Your task to perform on an android device: change text size in settings app Image 0: 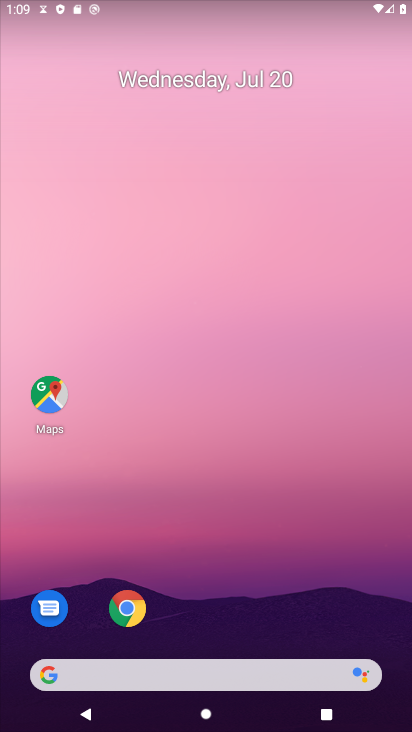
Step 0: drag from (211, 664) to (340, 116)
Your task to perform on an android device: change text size in settings app Image 1: 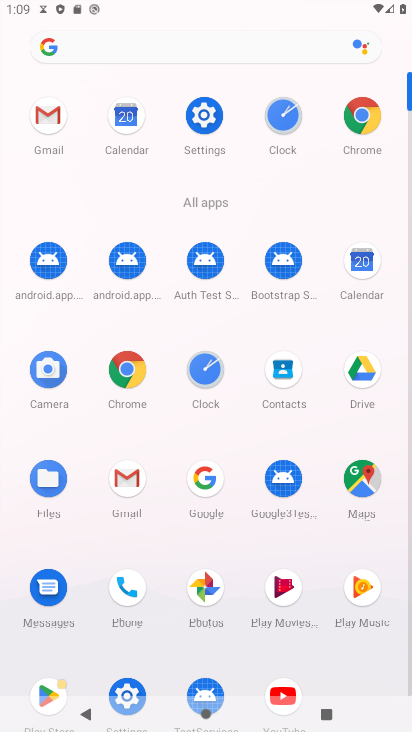
Step 1: click (202, 115)
Your task to perform on an android device: change text size in settings app Image 2: 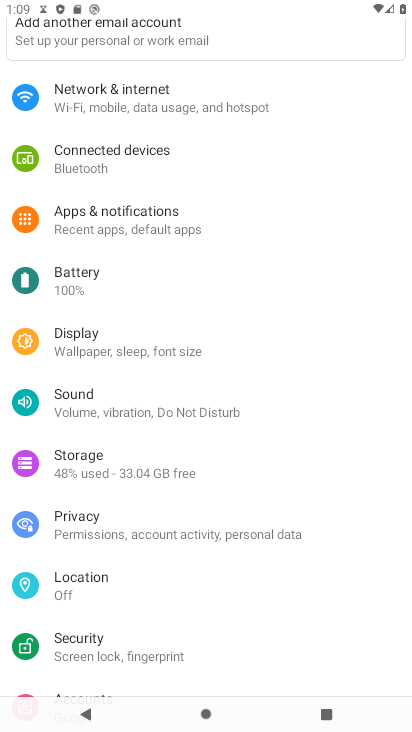
Step 2: drag from (107, 428) to (180, 334)
Your task to perform on an android device: change text size in settings app Image 3: 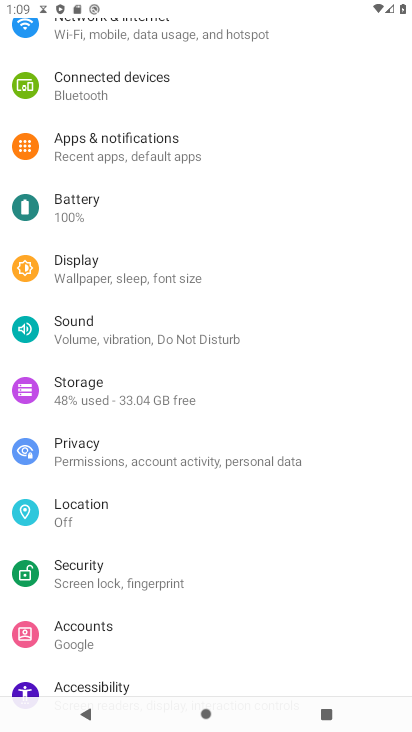
Step 3: drag from (151, 531) to (229, 442)
Your task to perform on an android device: change text size in settings app Image 4: 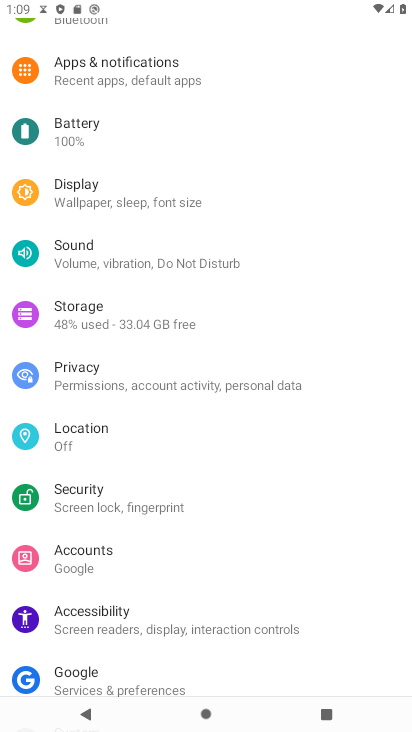
Step 4: drag from (129, 570) to (197, 464)
Your task to perform on an android device: change text size in settings app Image 5: 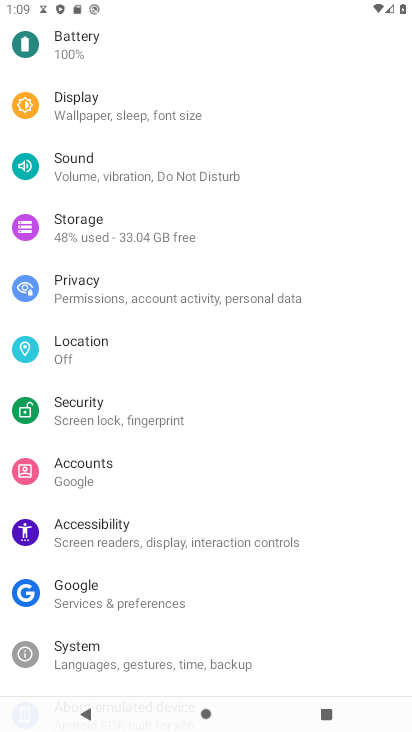
Step 5: drag from (109, 627) to (182, 525)
Your task to perform on an android device: change text size in settings app Image 6: 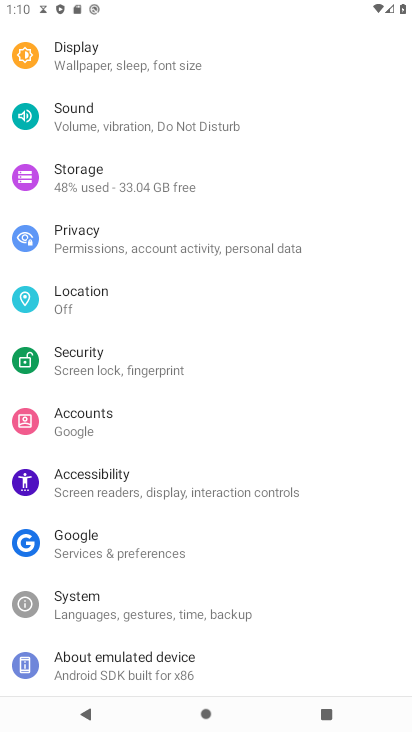
Step 6: click (121, 497)
Your task to perform on an android device: change text size in settings app Image 7: 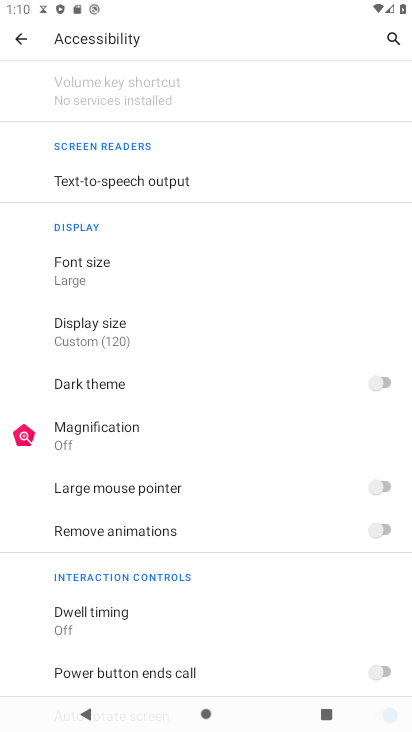
Step 7: click (81, 279)
Your task to perform on an android device: change text size in settings app Image 8: 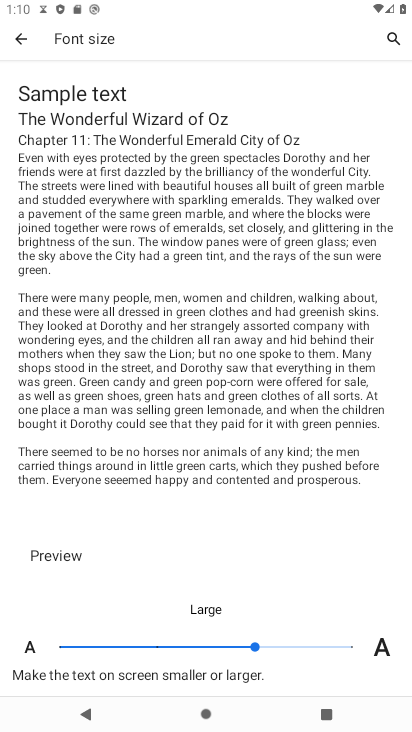
Step 8: click (356, 643)
Your task to perform on an android device: change text size in settings app Image 9: 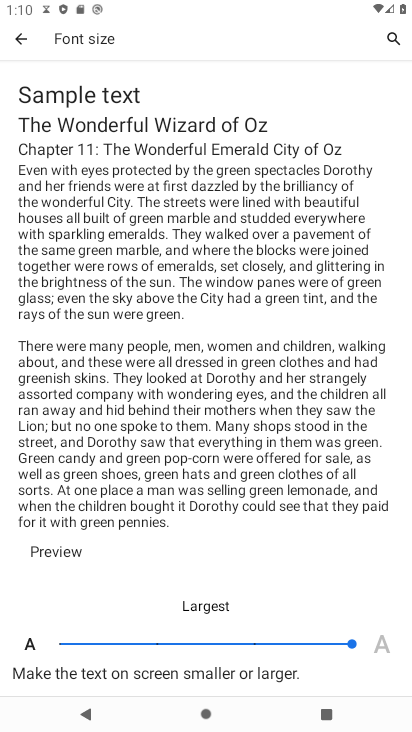
Step 9: task complete